Your task to perform on an android device: Go to settings Image 0: 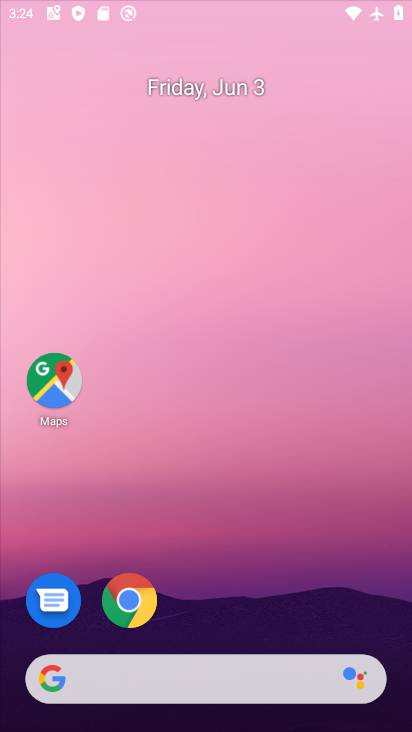
Step 0: drag from (255, 645) to (393, 5)
Your task to perform on an android device: Go to settings Image 1: 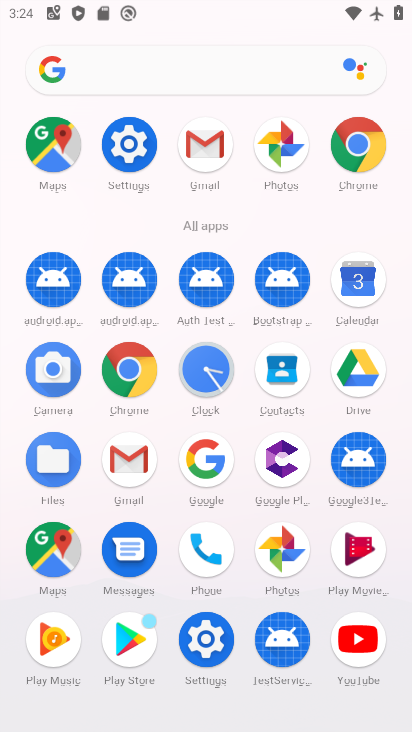
Step 1: click (132, 155)
Your task to perform on an android device: Go to settings Image 2: 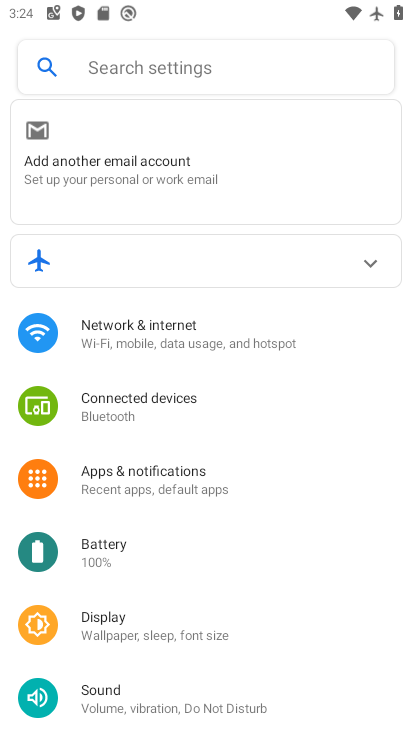
Step 2: task complete